Your task to perform on an android device: Search for sushi restaurants on Maps Image 0: 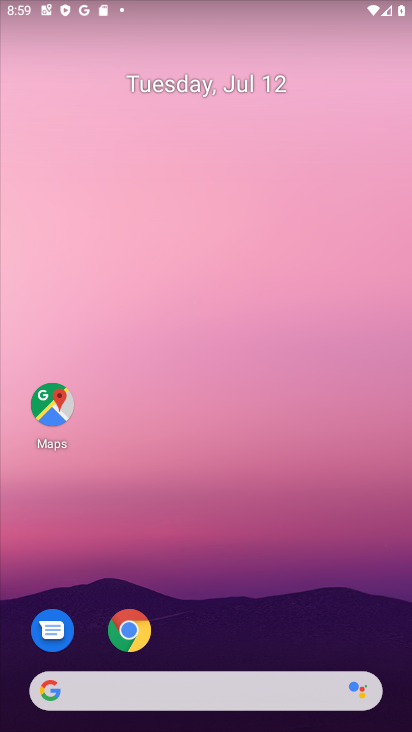
Step 0: drag from (215, 637) to (249, 153)
Your task to perform on an android device: Search for sushi restaurants on Maps Image 1: 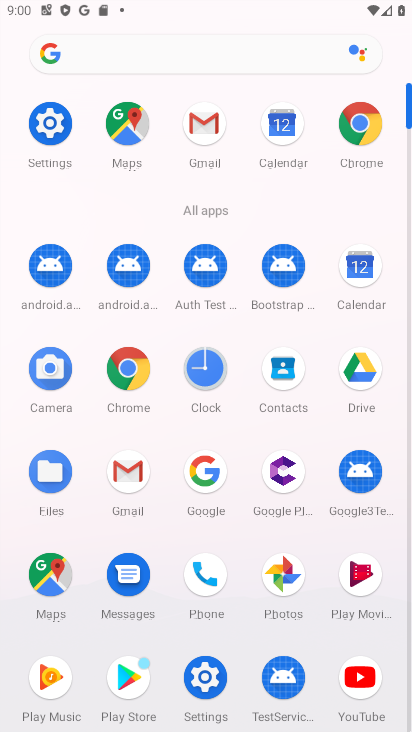
Step 1: click (123, 129)
Your task to perform on an android device: Search for sushi restaurants on Maps Image 2: 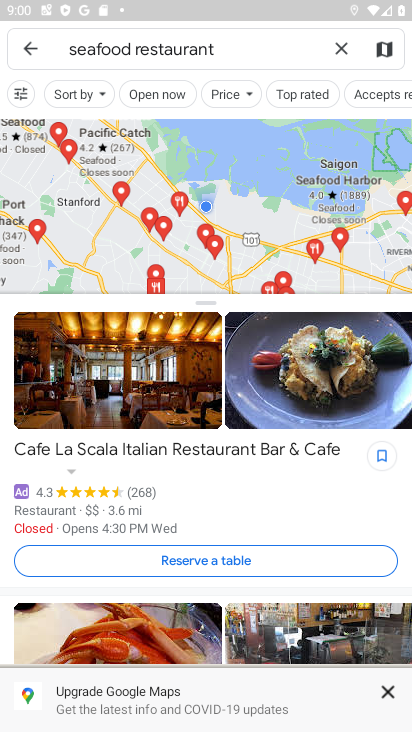
Step 2: click (341, 43)
Your task to perform on an android device: Search for sushi restaurants on Maps Image 3: 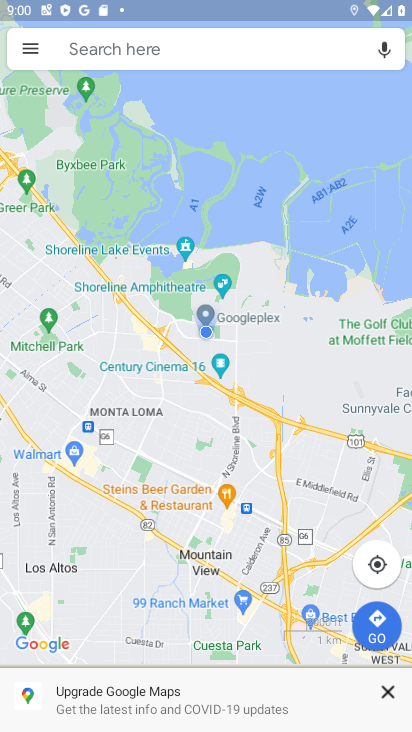
Step 3: click (228, 57)
Your task to perform on an android device: Search for sushi restaurants on Maps Image 4: 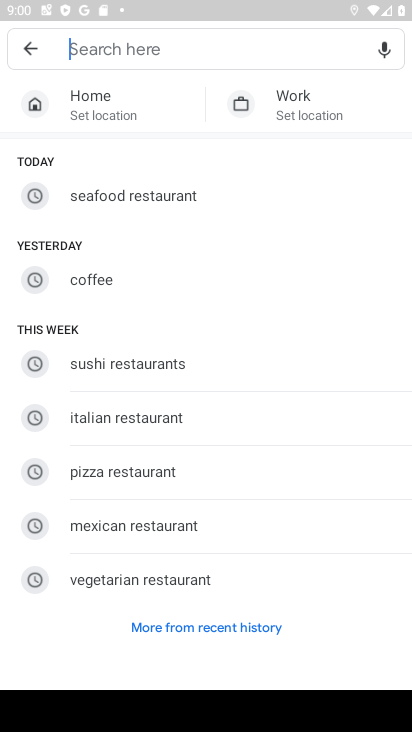
Step 4: click (120, 357)
Your task to perform on an android device: Search for sushi restaurants on Maps Image 5: 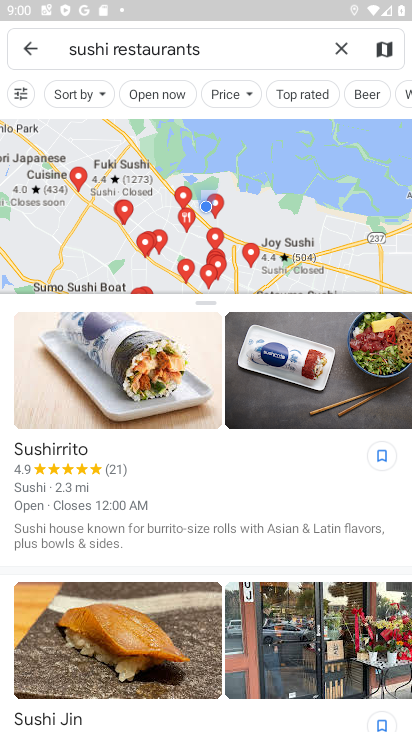
Step 5: task complete